Your task to perform on an android device: change the clock display to show seconds Image 0: 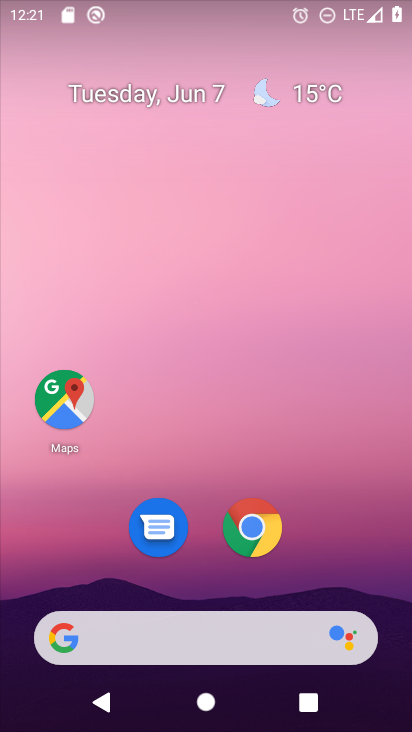
Step 0: drag from (367, 547) to (340, 130)
Your task to perform on an android device: change the clock display to show seconds Image 1: 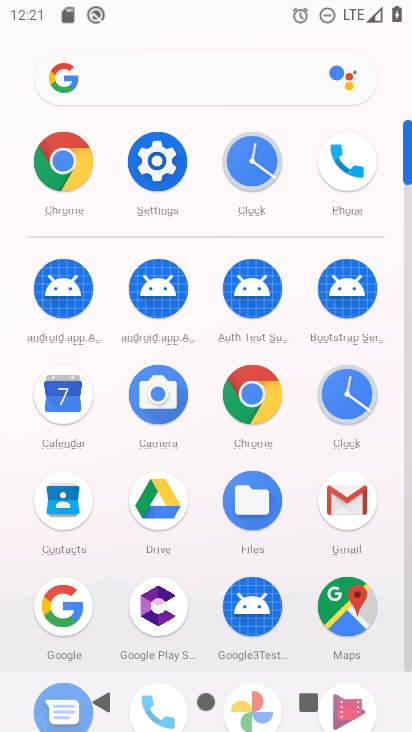
Step 1: click (352, 402)
Your task to perform on an android device: change the clock display to show seconds Image 2: 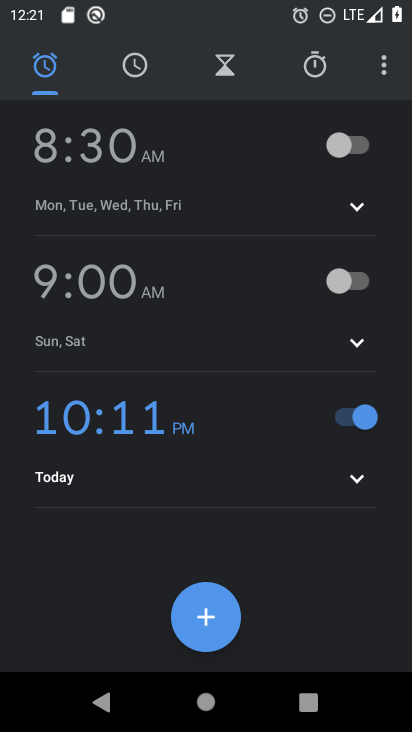
Step 2: click (387, 76)
Your task to perform on an android device: change the clock display to show seconds Image 3: 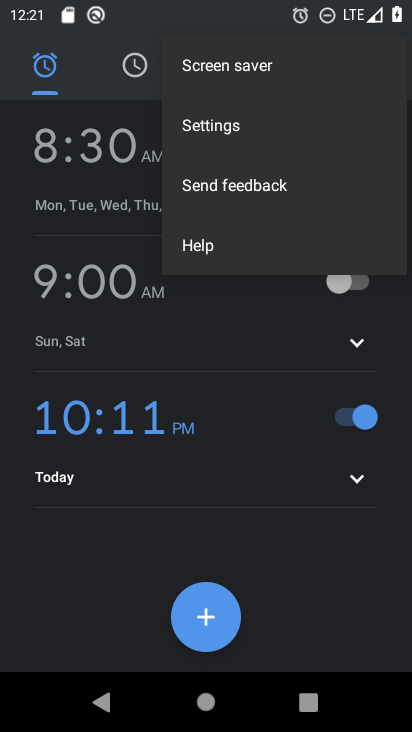
Step 3: click (225, 143)
Your task to perform on an android device: change the clock display to show seconds Image 4: 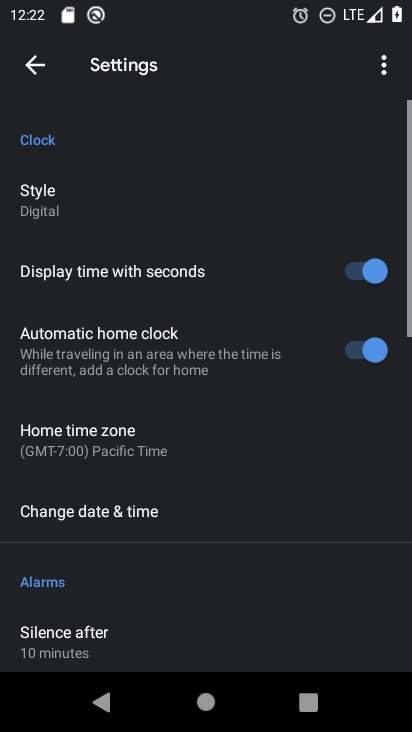
Step 4: task complete